Your task to perform on an android device: Open maps Image 0: 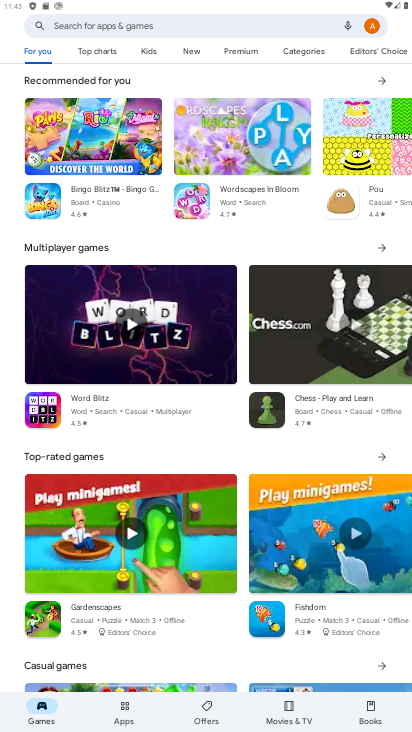
Step 0: press home button
Your task to perform on an android device: Open maps Image 1: 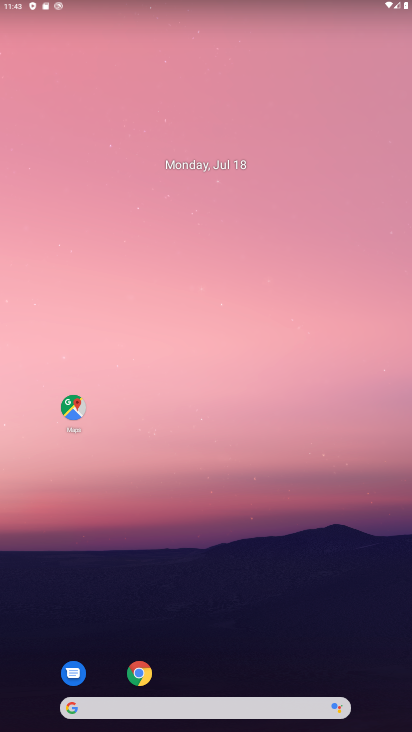
Step 1: click (69, 398)
Your task to perform on an android device: Open maps Image 2: 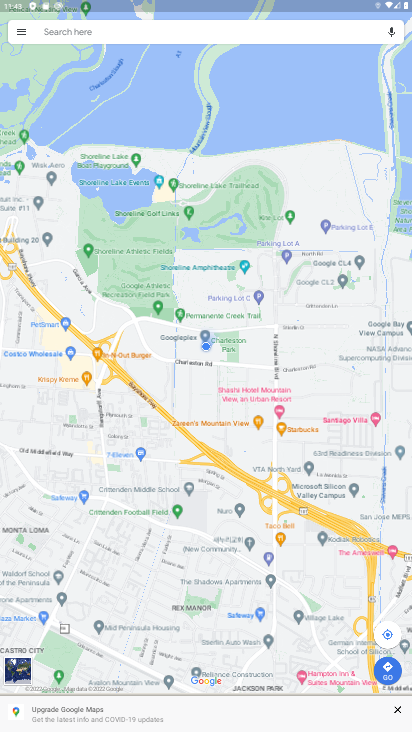
Step 2: task complete